Your task to perform on an android device: Open Google Chrome and click the shortcut for Amazon.com Image 0: 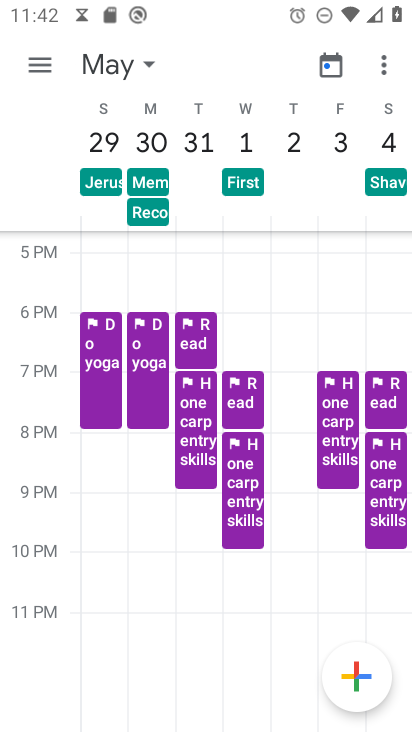
Step 0: press back button
Your task to perform on an android device: Open Google Chrome and click the shortcut for Amazon.com Image 1: 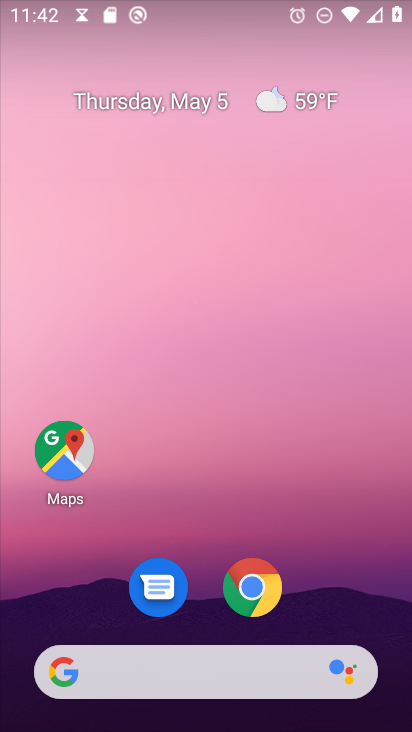
Step 1: drag from (329, 554) to (363, 43)
Your task to perform on an android device: Open Google Chrome and click the shortcut for Amazon.com Image 2: 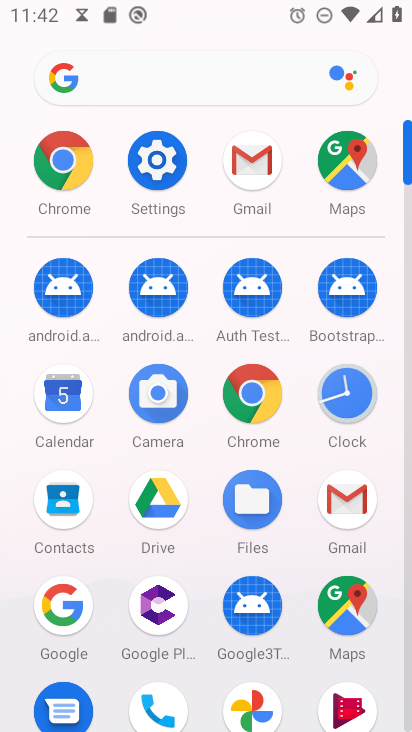
Step 2: drag from (16, 574) to (23, 375)
Your task to perform on an android device: Open Google Chrome and click the shortcut for Amazon.com Image 3: 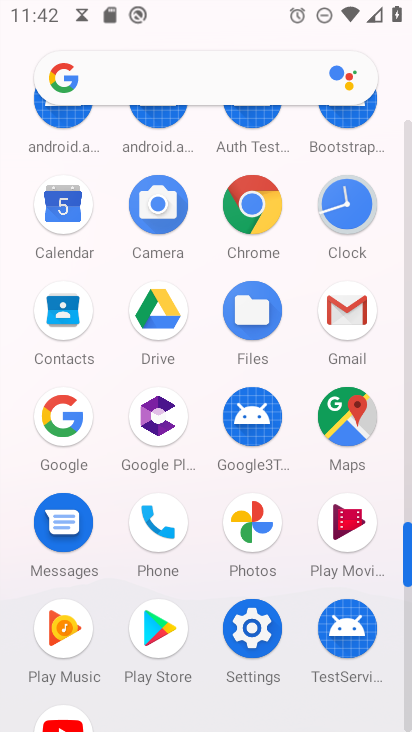
Step 3: click (250, 204)
Your task to perform on an android device: Open Google Chrome and click the shortcut for Amazon.com Image 4: 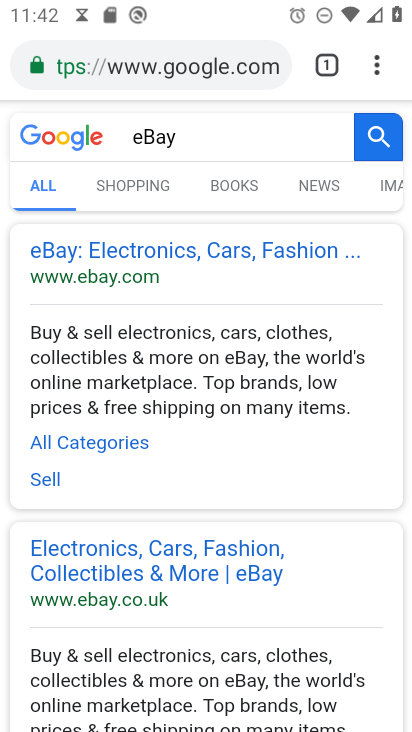
Step 4: click (201, 54)
Your task to perform on an android device: Open Google Chrome and click the shortcut for Amazon.com Image 5: 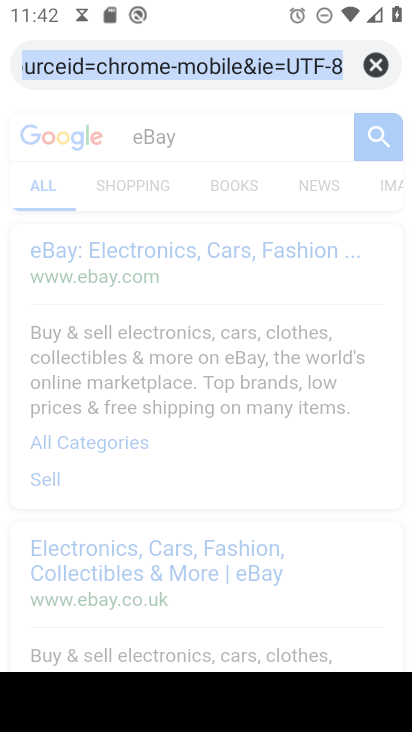
Step 5: click (372, 56)
Your task to perform on an android device: Open Google Chrome and click the shortcut for Amazon.com Image 6: 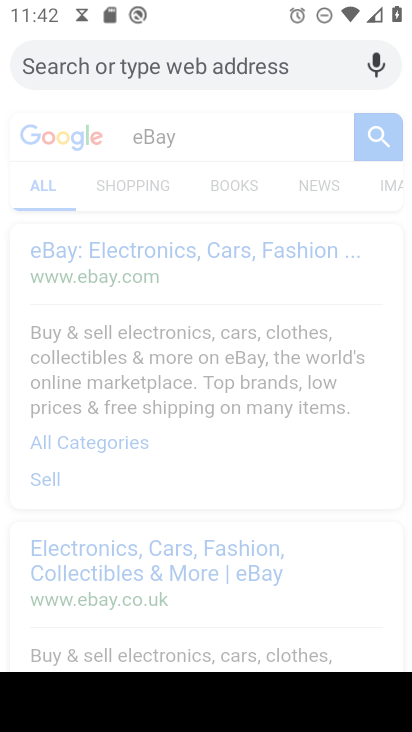
Step 6: type "Amazon.com"
Your task to perform on an android device: Open Google Chrome and click the shortcut for Amazon.com Image 7: 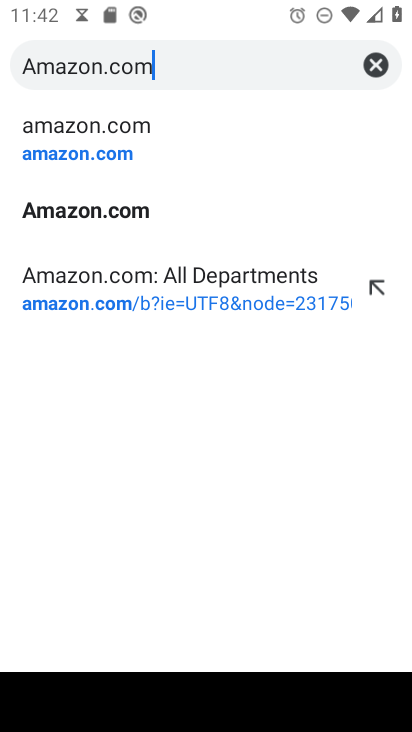
Step 7: type ""
Your task to perform on an android device: Open Google Chrome and click the shortcut for Amazon.com Image 8: 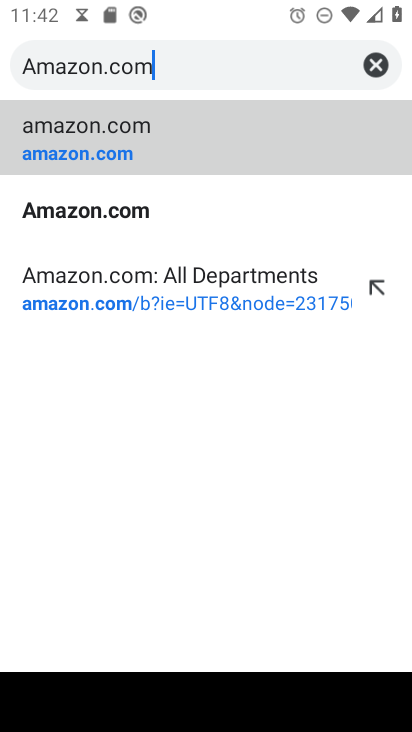
Step 8: click (202, 134)
Your task to perform on an android device: Open Google Chrome and click the shortcut for Amazon.com Image 9: 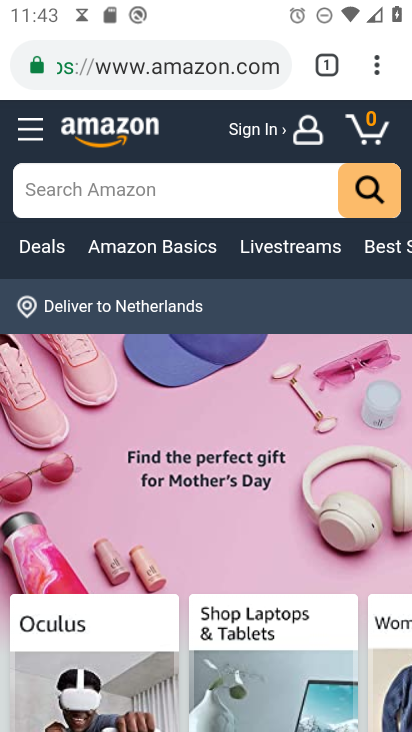
Step 9: drag from (367, 62) to (196, 658)
Your task to perform on an android device: Open Google Chrome and click the shortcut for Amazon.com Image 10: 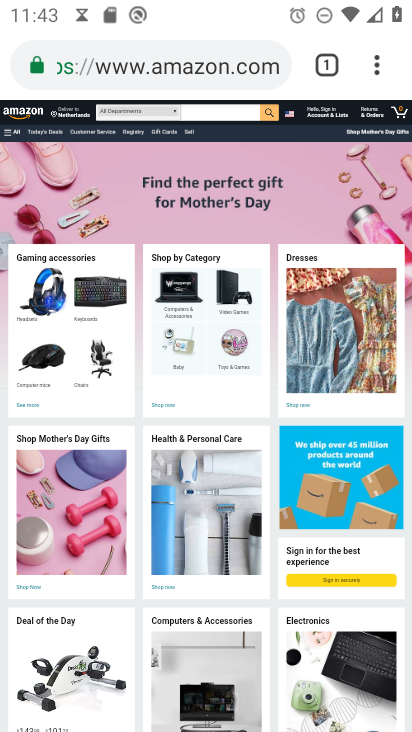
Step 10: drag from (370, 56) to (185, 646)
Your task to perform on an android device: Open Google Chrome and click the shortcut for Amazon.com Image 11: 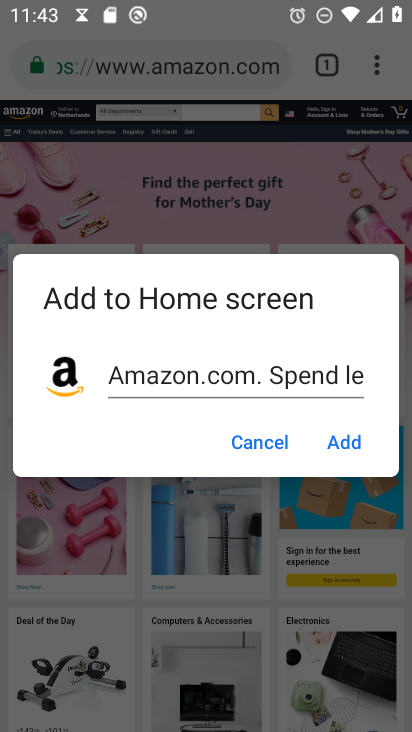
Step 11: click (344, 440)
Your task to perform on an android device: Open Google Chrome and click the shortcut for Amazon.com Image 12: 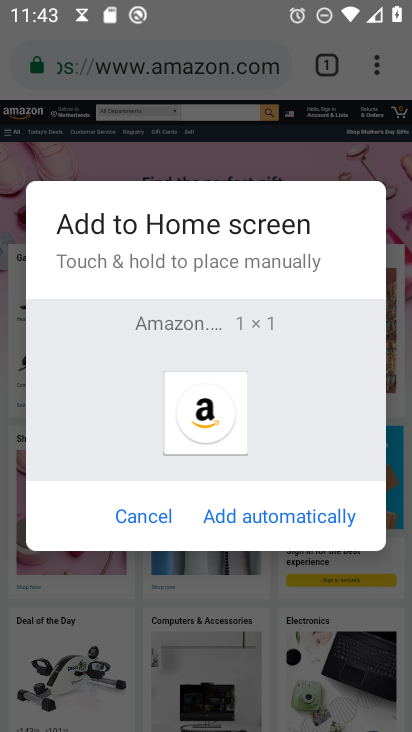
Step 12: click (321, 511)
Your task to perform on an android device: Open Google Chrome and click the shortcut for Amazon.com Image 13: 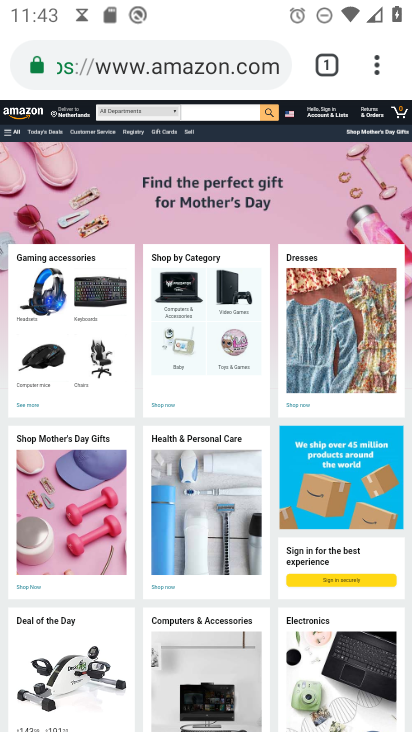
Step 13: task complete